Your task to perform on an android device: turn off wifi Image 0: 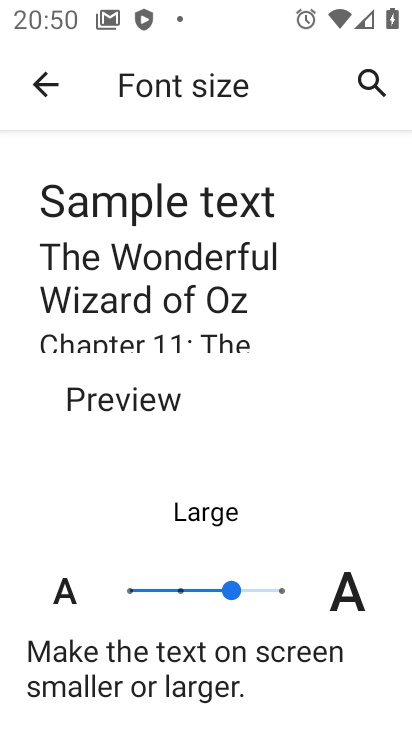
Step 0: drag from (189, 11) to (199, 533)
Your task to perform on an android device: turn off wifi Image 1: 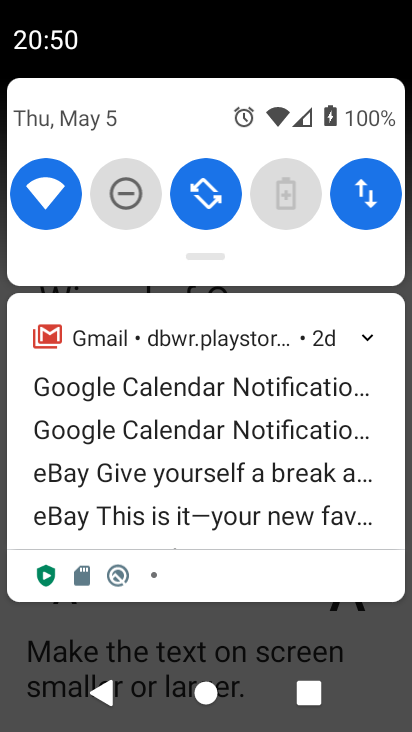
Step 1: click (42, 210)
Your task to perform on an android device: turn off wifi Image 2: 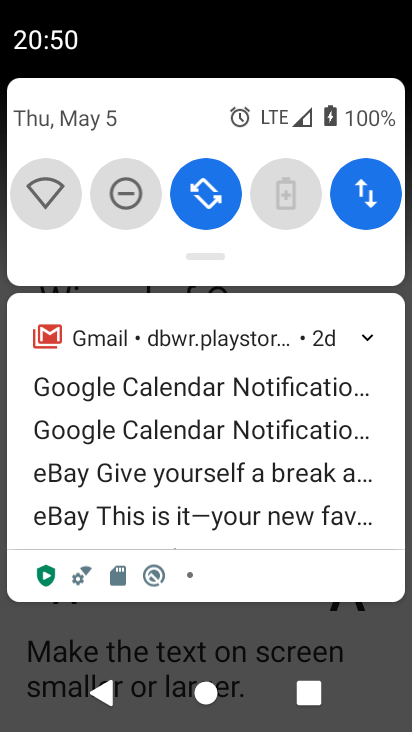
Step 2: task complete